Your task to perform on an android device: change the clock display to show seconds Image 0: 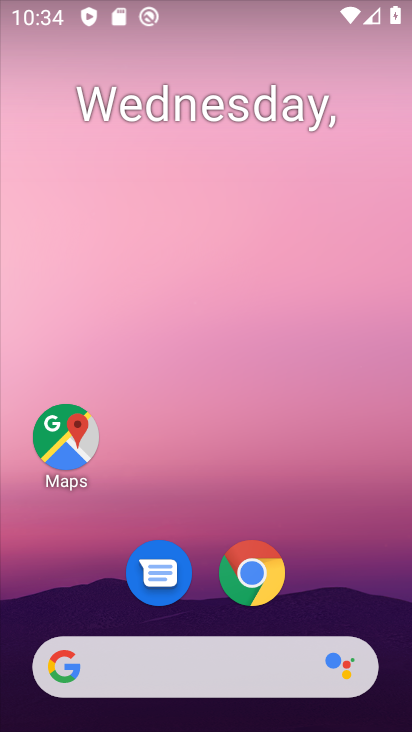
Step 0: drag from (308, 617) to (302, 192)
Your task to perform on an android device: change the clock display to show seconds Image 1: 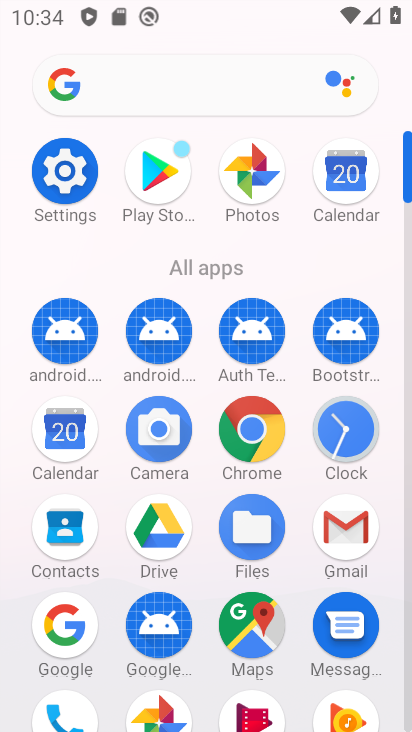
Step 1: click (350, 442)
Your task to perform on an android device: change the clock display to show seconds Image 2: 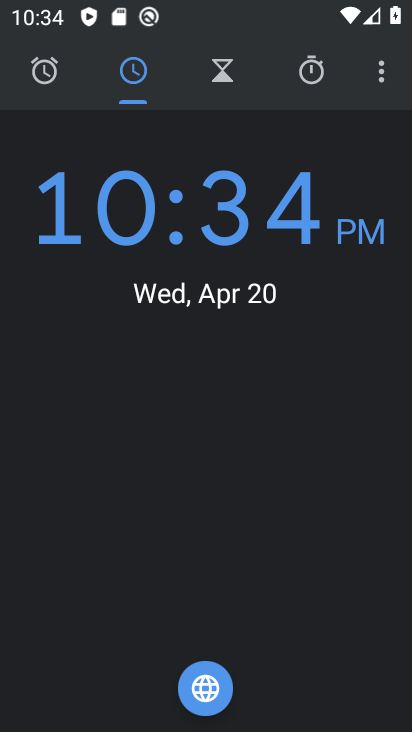
Step 2: click (377, 74)
Your task to perform on an android device: change the clock display to show seconds Image 3: 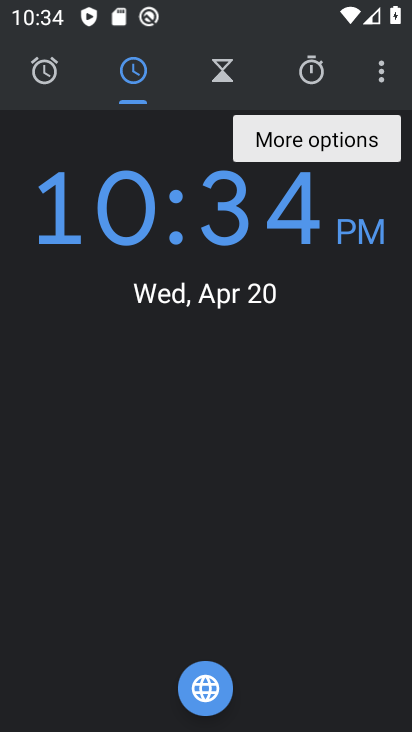
Step 3: click (377, 78)
Your task to perform on an android device: change the clock display to show seconds Image 4: 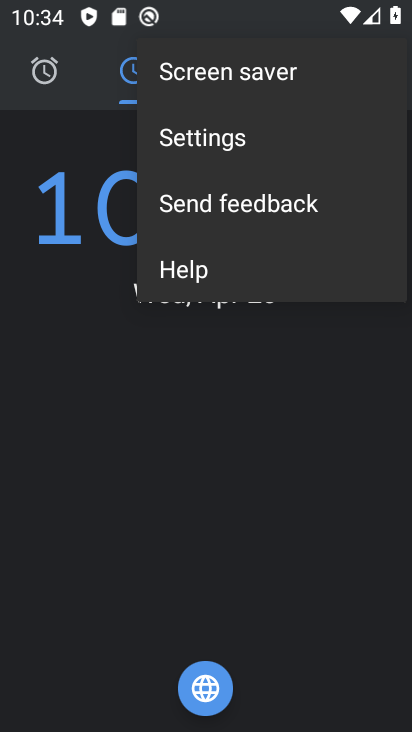
Step 4: click (251, 148)
Your task to perform on an android device: change the clock display to show seconds Image 5: 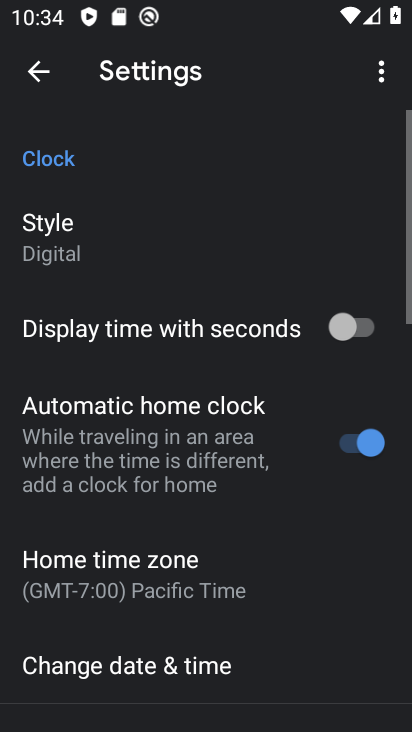
Step 5: click (349, 317)
Your task to perform on an android device: change the clock display to show seconds Image 6: 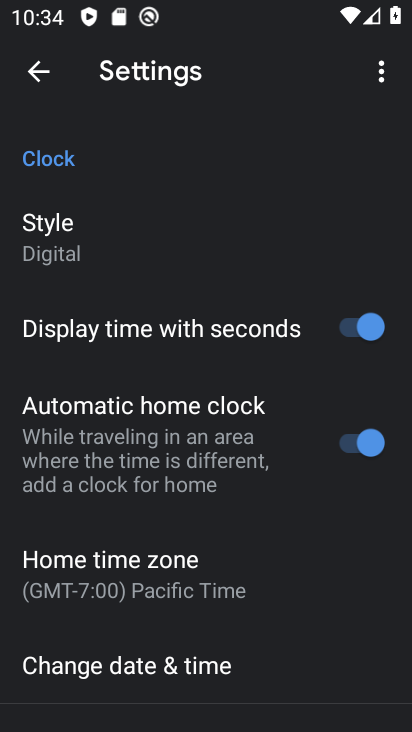
Step 6: task complete